Your task to perform on an android device: toggle airplane mode Image 0: 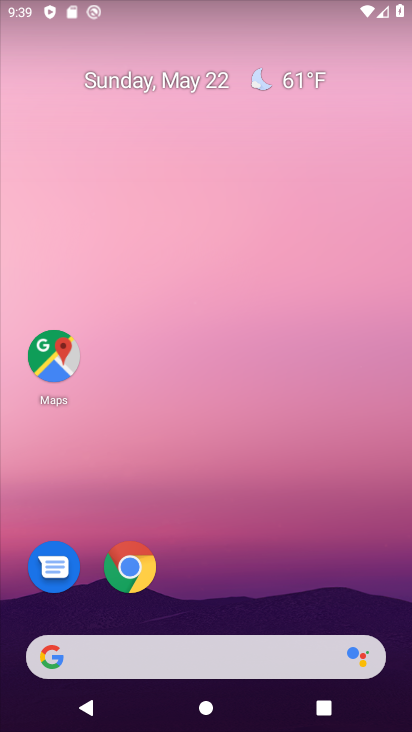
Step 0: drag from (234, 614) to (188, 29)
Your task to perform on an android device: toggle airplane mode Image 1: 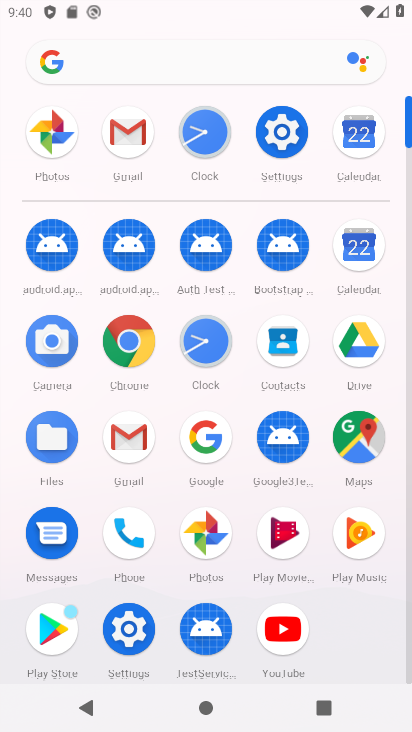
Step 1: click (282, 148)
Your task to perform on an android device: toggle airplane mode Image 2: 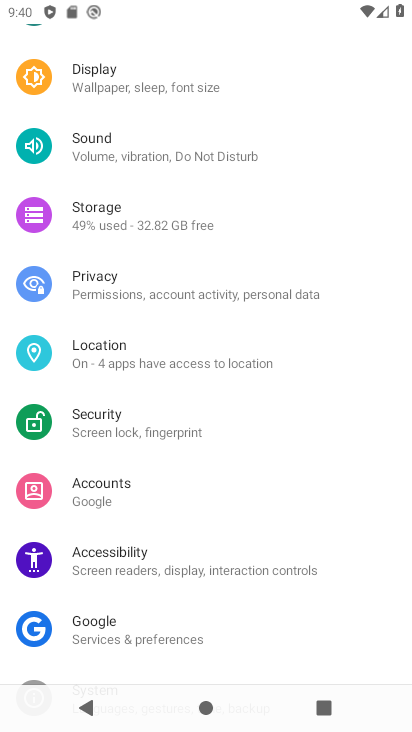
Step 2: drag from (282, 149) to (334, 579)
Your task to perform on an android device: toggle airplane mode Image 3: 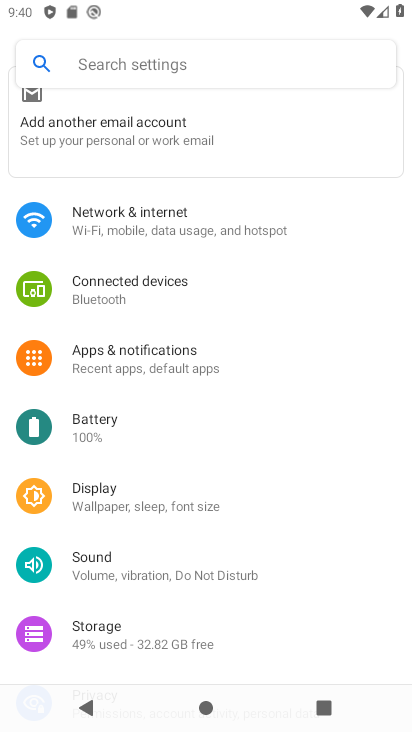
Step 3: click (190, 217)
Your task to perform on an android device: toggle airplane mode Image 4: 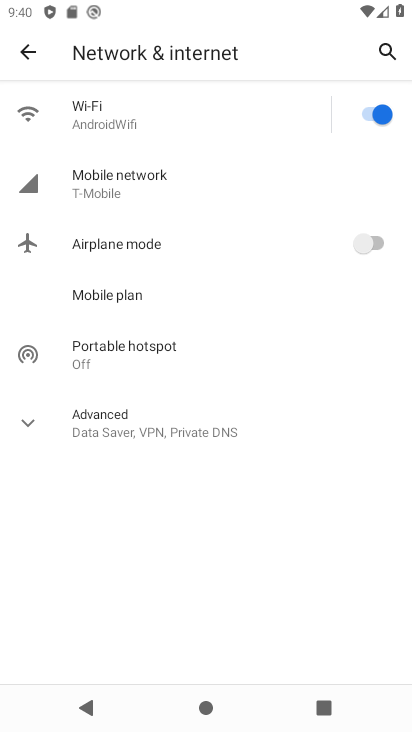
Step 4: click (360, 247)
Your task to perform on an android device: toggle airplane mode Image 5: 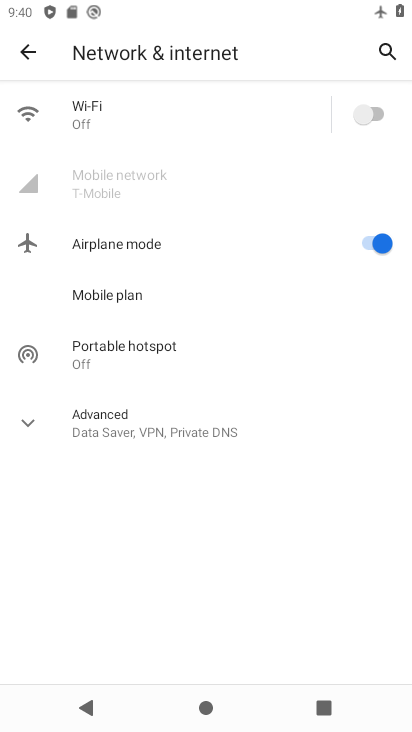
Step 5: task complete